Your task to perform on an android device: check data usage Image 0: 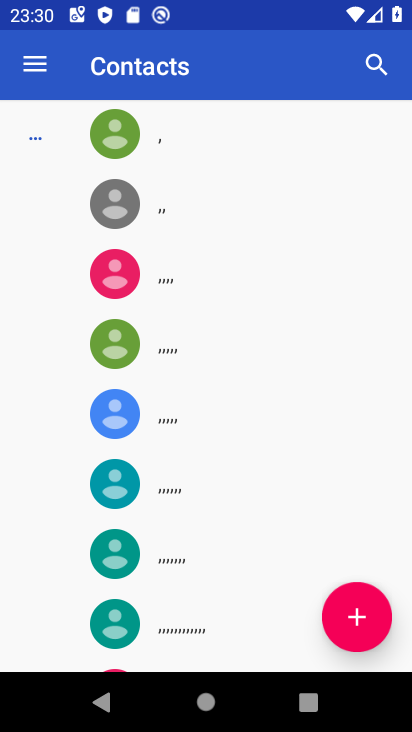
Step 0: press home button
Your task to perform on an android device: check data usage Image 1: 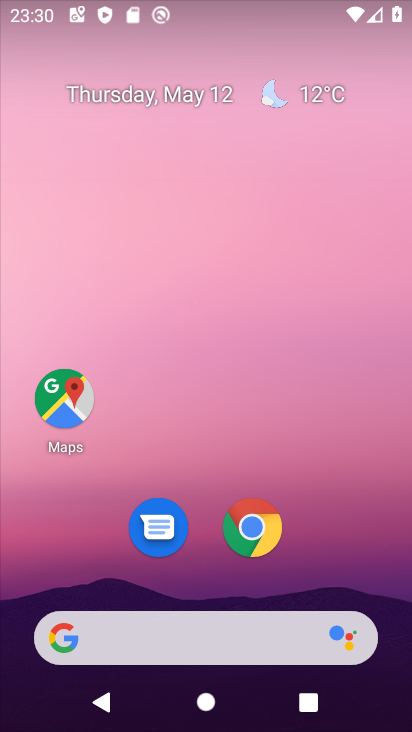
Step 1: drag from (3, 727) to (250, 136)
Your task to perform on an android device: check data usage Image 2: 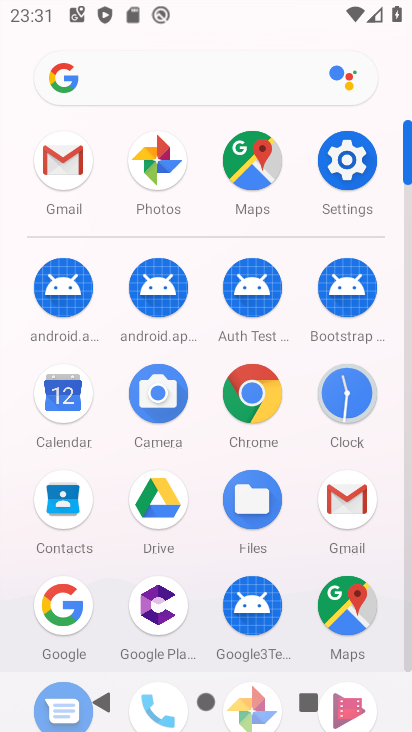
Step 2: click (353, 138)
Your task to perform on an android device: check data usage Image 3: 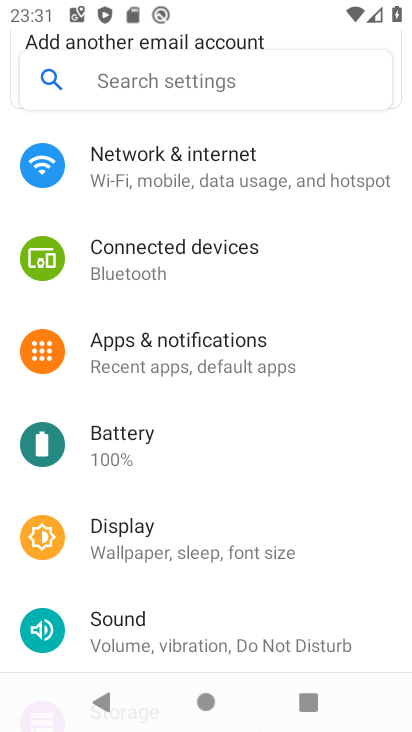
Step 3: click (259, 167)
Your task to perform on an android device: check data usage Image 4: 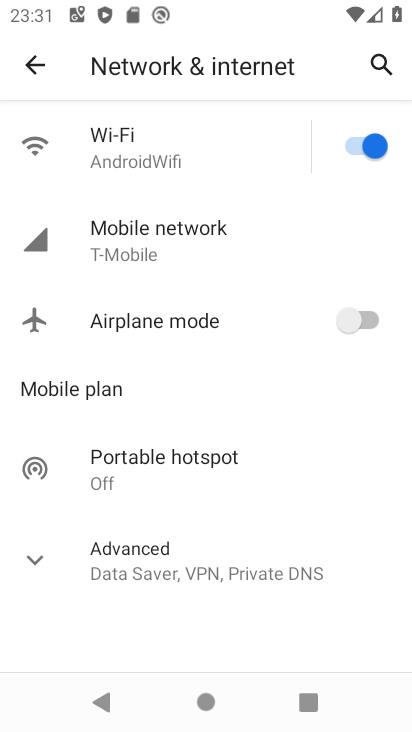
Step 4: click (191, 235)
Your task to perform on an android device: check data usage Image 5: 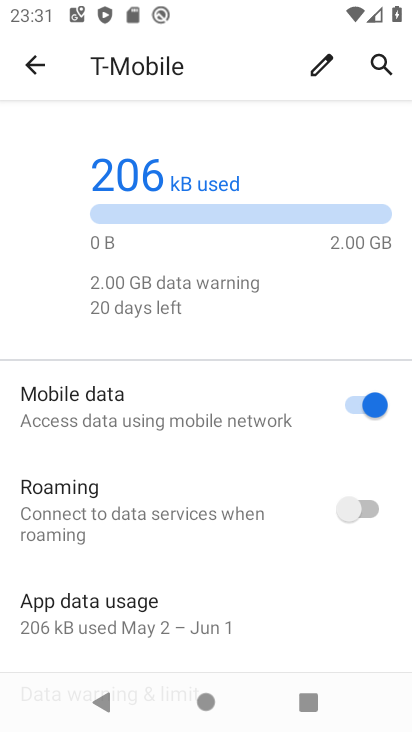
Step 5: click (113, 611)
Your task to perform on an android device: check data usage Image 6: 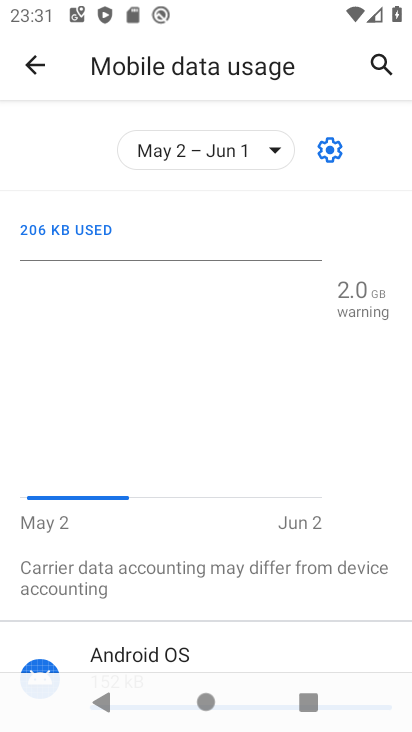
Step 6: task complete